Your task to perform on an android device: Go to eBay Image 0: 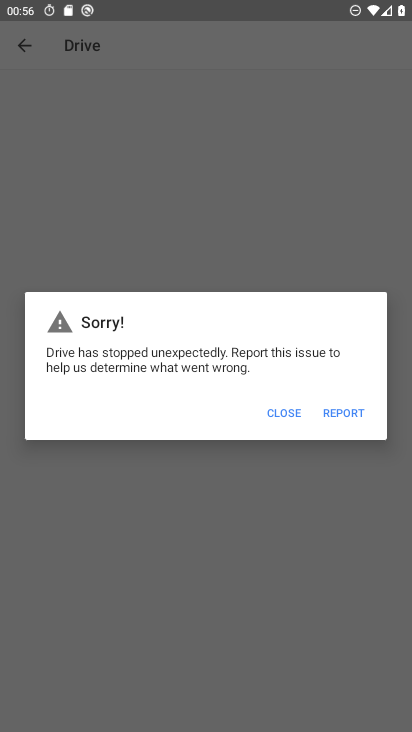
Step 0: press home button
Your task to perform on an android device: Go to eBay Image 1: 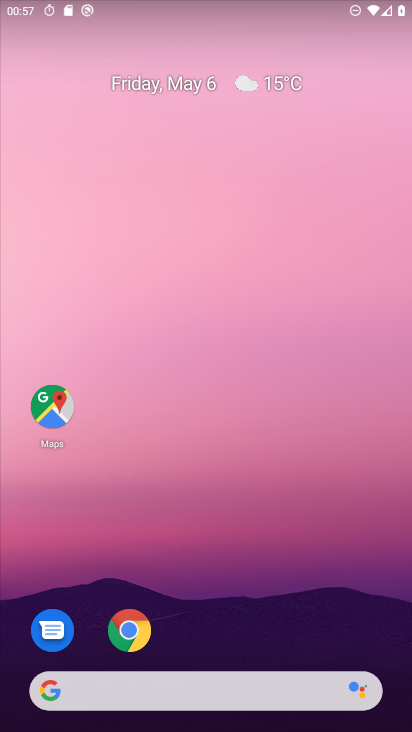
Step 1: click (123, 633)
Your task to perform on an android device: Go to eBay Image 2: 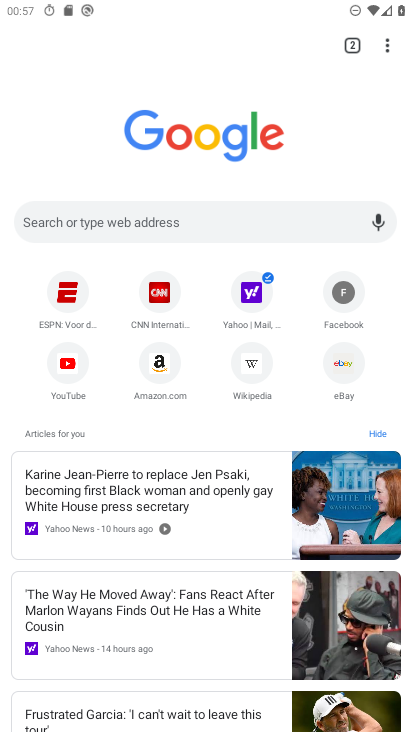
Step 2: click (228, 219)
Your task to perform on an android device: Go to eBay Image 3: 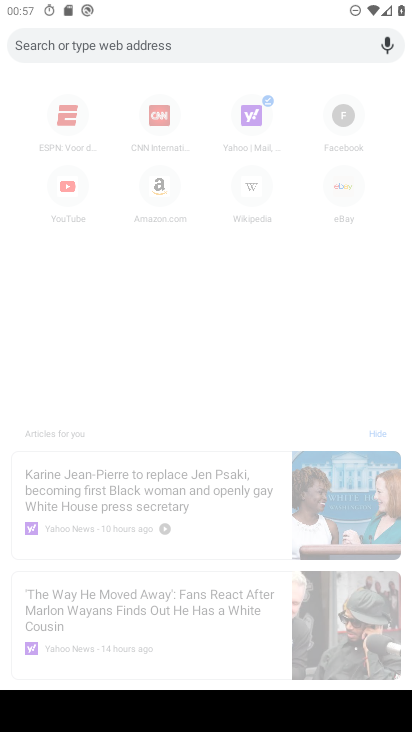
Step 3: type "ebay"
Your task to perform on an android device: Go to eBay Image 4: 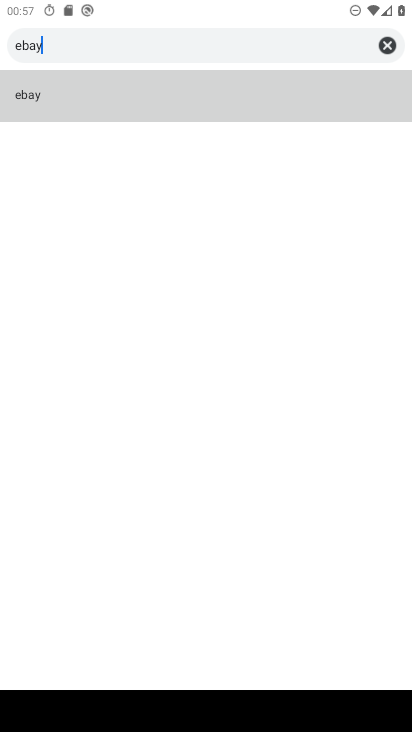
Step 4: click (37, 88)
Your task to perform on an android device: Go to eBay Image 5: 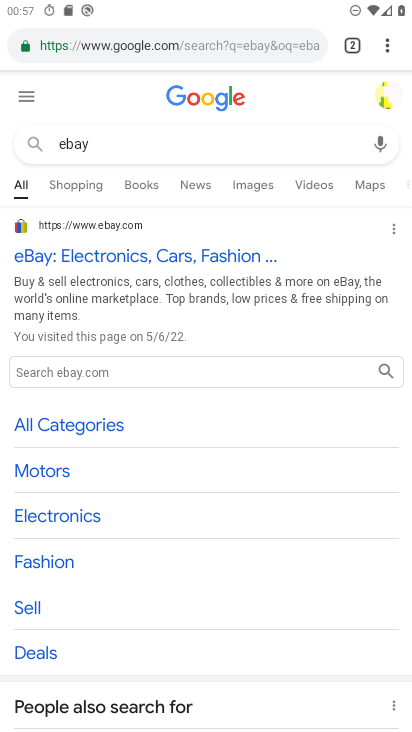
Step 5: click (114, 260)
Your task to perform on an android device: Go to eBay Image 6: 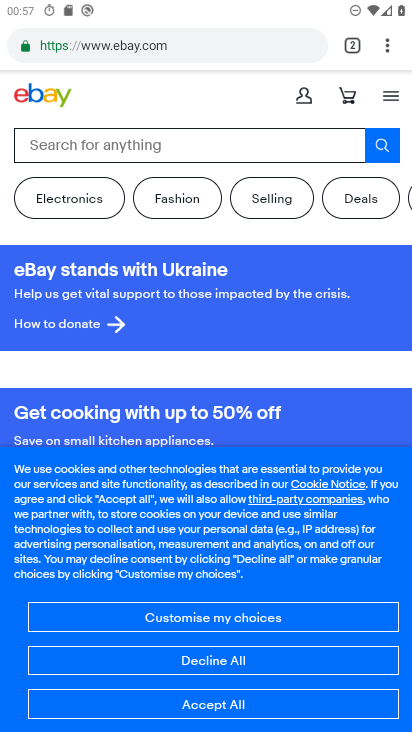
Step 6: task complete